Your task to perform on an android device: clear all cookies in the chrome app Image 0: 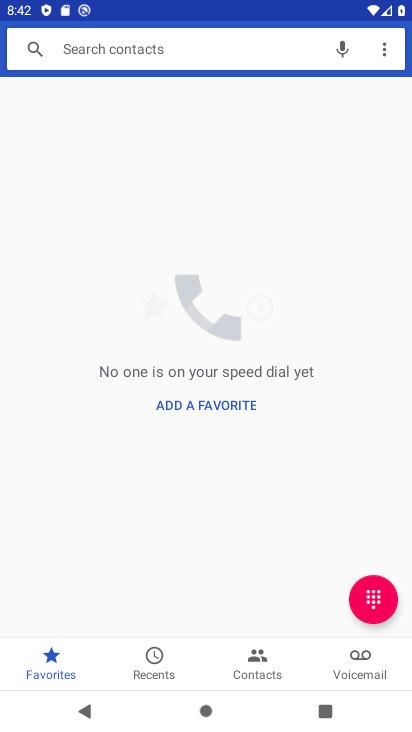
Step 0: press back button
Your task to perform on an android device: clear all cookies in the chrome app Image 1: 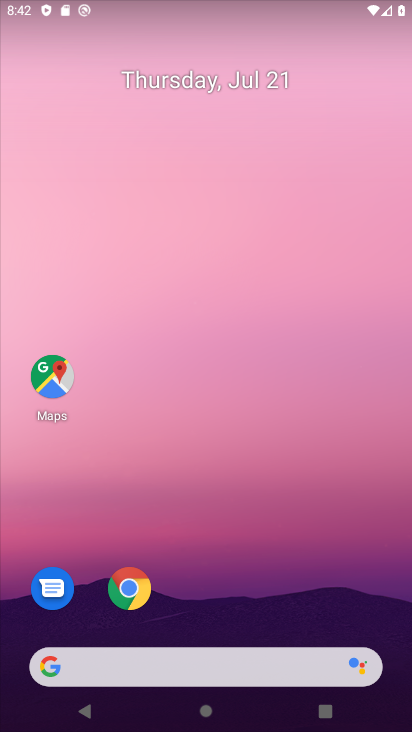
Step 1: drag from (189, 382) to (172, 179)
Your task to perform on an android device: clear all cookies in the chrome app Image 2: 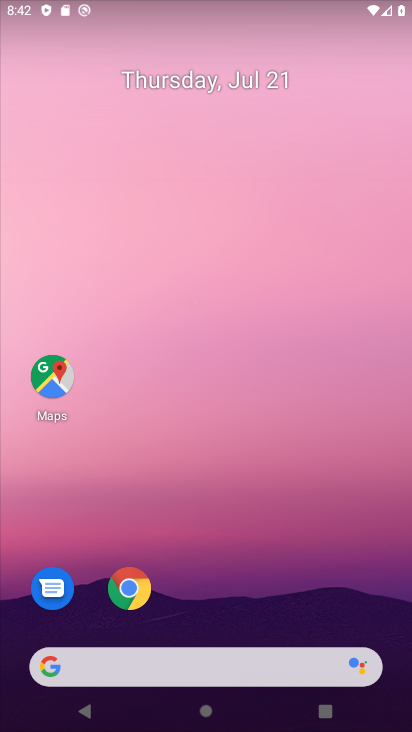
Step 2: drag from (174, 225) to (170, 183)
Your task to perform on an android device: clear all cookies in the chrome app Image 3: 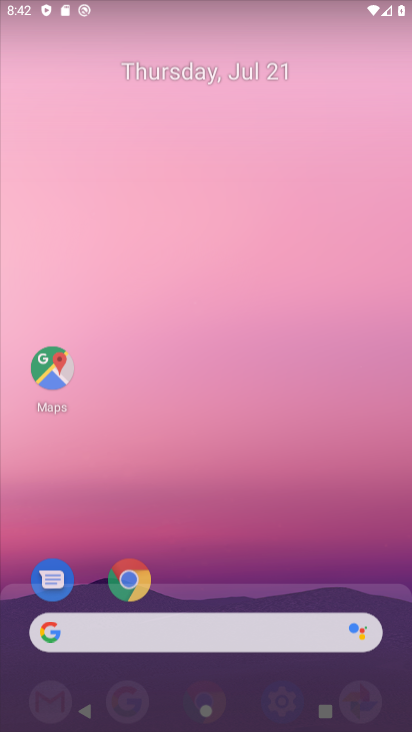
Step 3: drag from (193, 493) to (142, 142)
Your task to perform on an android device: clear all cookies in the chrome app Image 4: 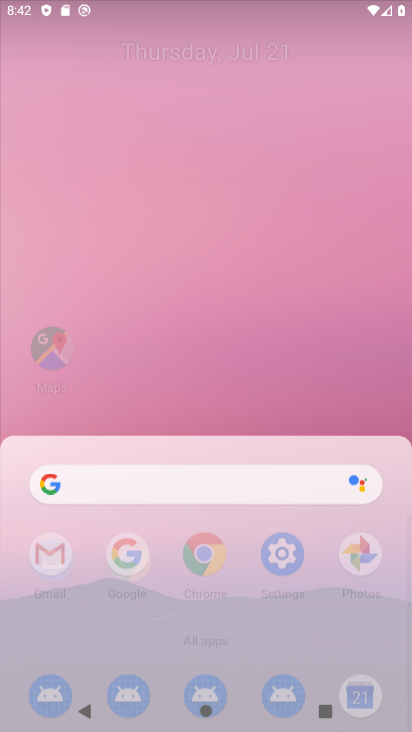
Step 4: drag from (217, 453) to (152, 237)
Your task to perform on an android device: clear all cookies in the chrome app Image 5: 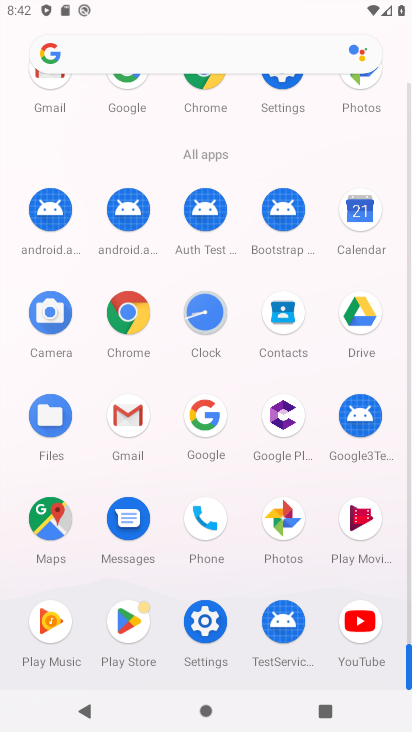
Step 5: drag from (151, 522) to (145, 172)
Your task to perform on an android device: clear all cookies in the chrome app Image 6: 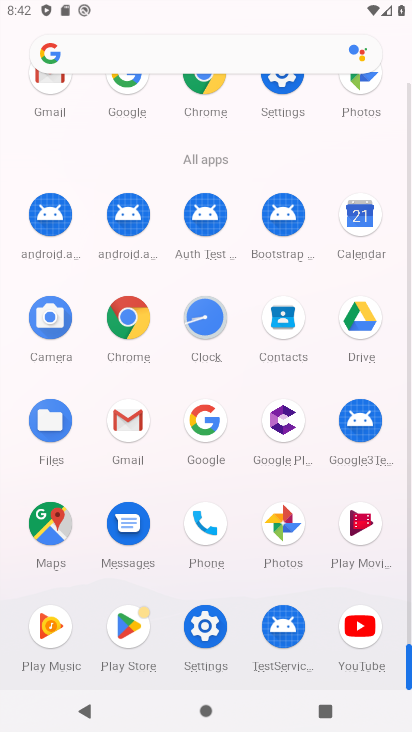
Step 6: click (133, 326)
Your task to perform on an android device: clear all cookies in the chrome app Image 7: 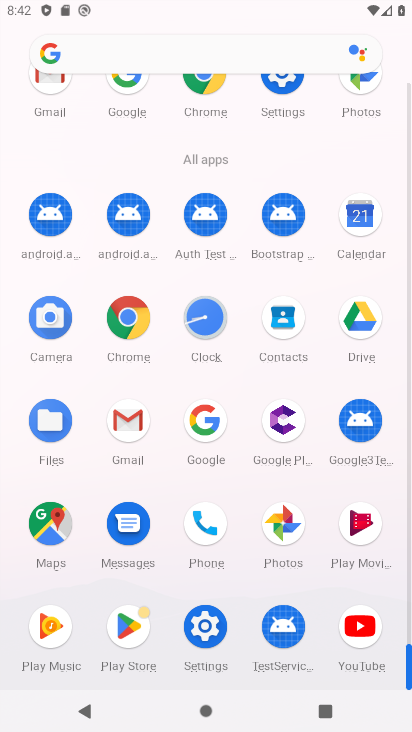
Step 7: click (133, 326)
Your task to perform on an android device: clear all cookies in the chrome app Image 8: 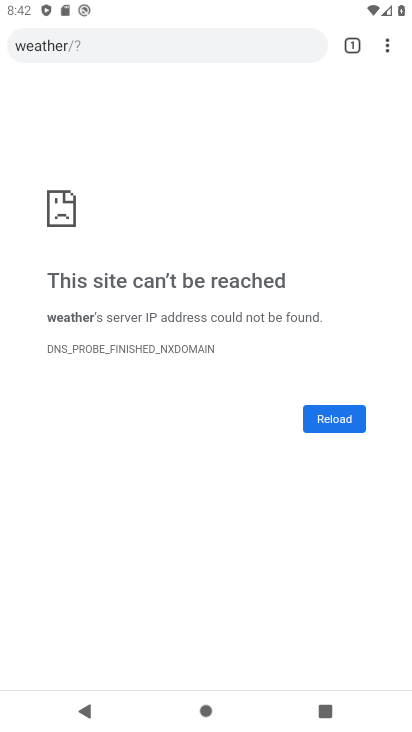
Step 8: drag from (385, 40) to (213, 506)
Your task to perform on an android device: clear all cookies in the chrome app Image 9: 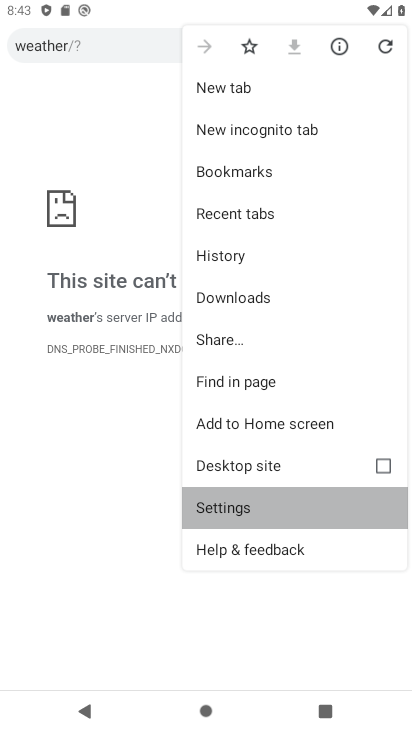
Step 9: click (221, 505)
Your task to perform on an android device: clear all cookies in the chrome app Image 10: 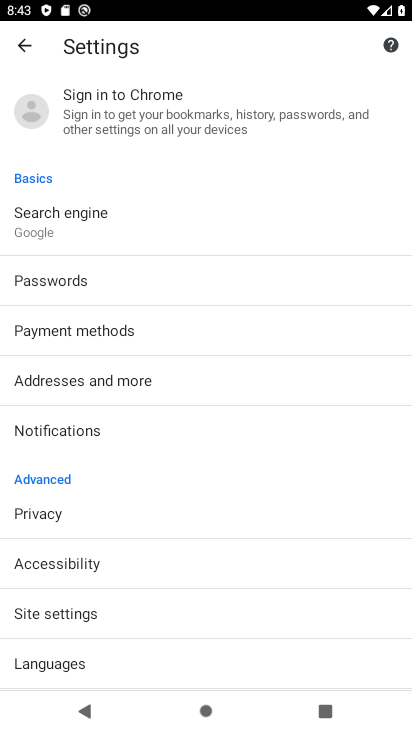
Step 10: click (63, 612)
Your task to perform on an android device: clear all cookies in the chrome app Image 11: 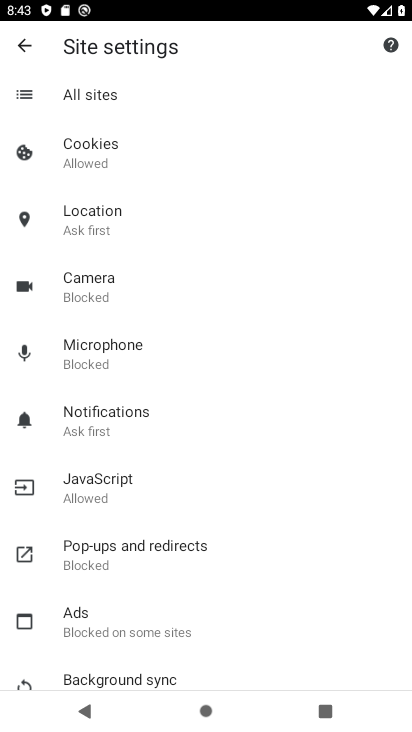
Step 11: click (78, 161)
Your task to perform on an android device: clear all cookies in the chrome app Image 12: 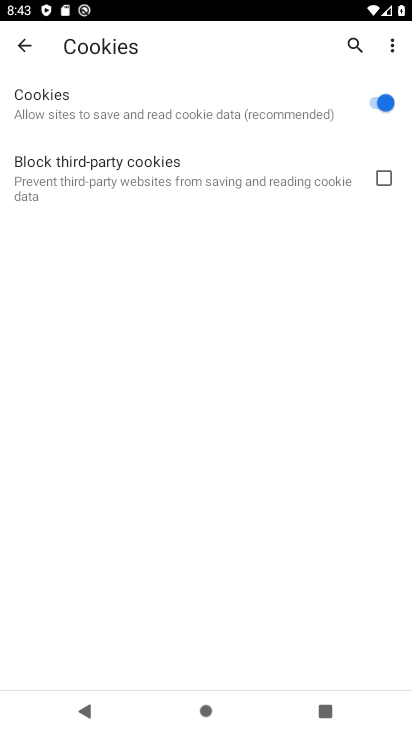
Step 12: click (376, 104)
Your task to perform on an android device: clear all cookies in the chrome app Image 13: 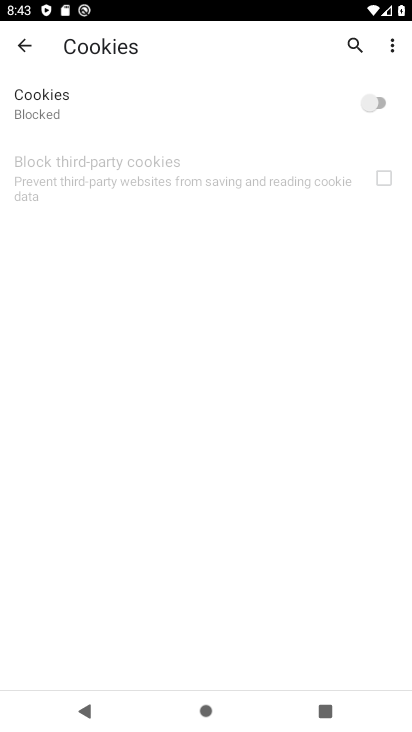
Step 13: task complete